Your task to perform on an android device: read, delete, or share a saved page in the chrome app Image 0: 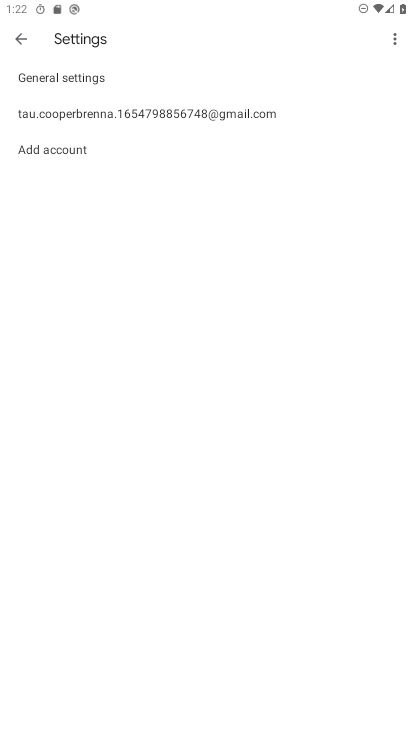
Step 0: drag from (224, 321) to (269, 74)
Your task to perform on an android device: read, delete, or share a saved page in the chrome app Image 1: 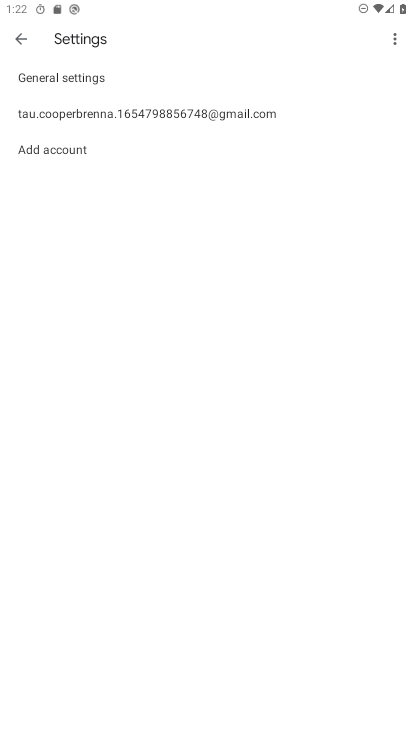
Step 1: press home button
Your task to perform on an android device: read, delete, or share a saved page in the chrome app Image 2: 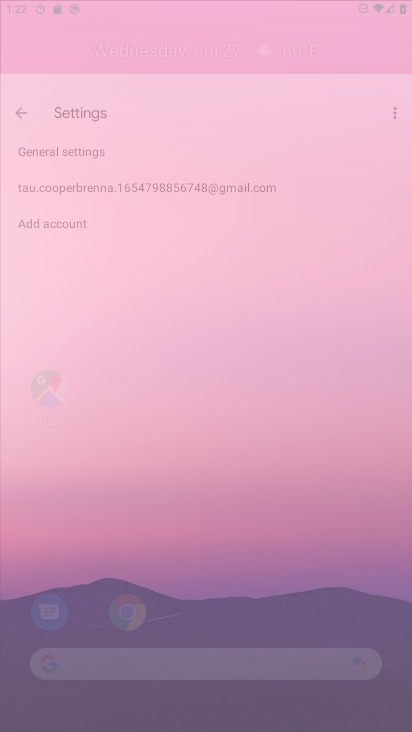
Step 2: drag from (162, 673) to (131, 5)
Your task to perform on an android device: read, delete, or share a saved page in the chrome app Image 3: 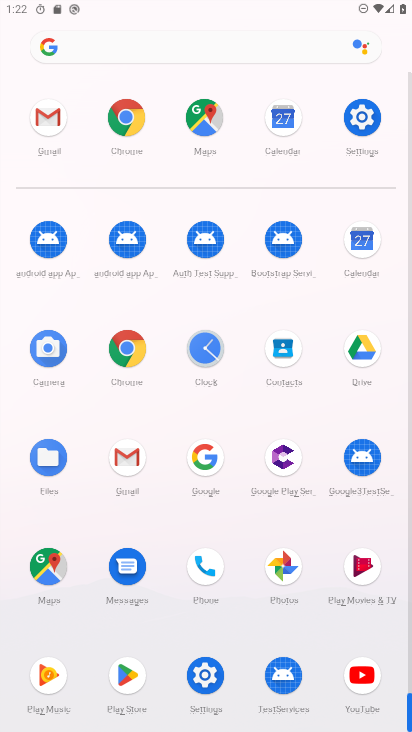
Step 3: click (118, 350)
Your task to perform on an android device: read, delete, or share a saved page in the chrome app Image 4: 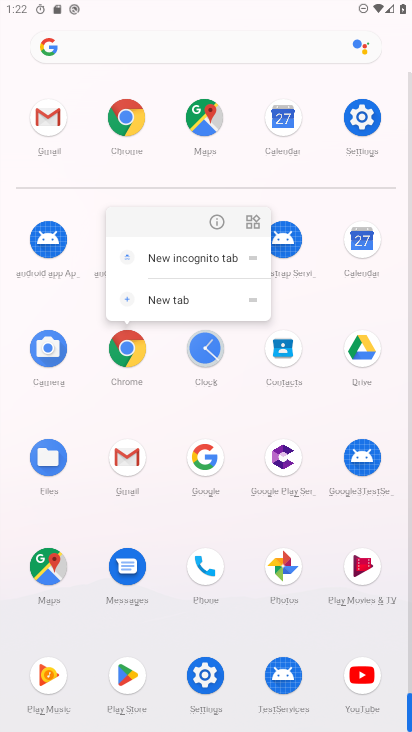
Step 4: click (214, 223)
Your task to perform on an android device: read, delete, or share a saved page in the chrome app Image 5: 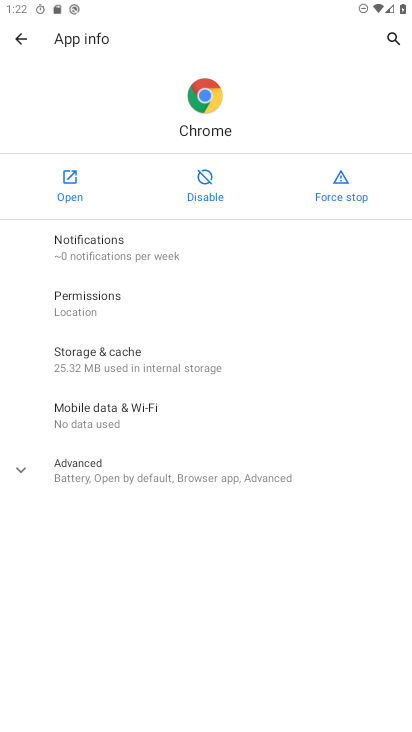
Step 5: click (88, 183)
Your task to perform on an android device: read, delete, or share a saved page in the chrome app Image 6: 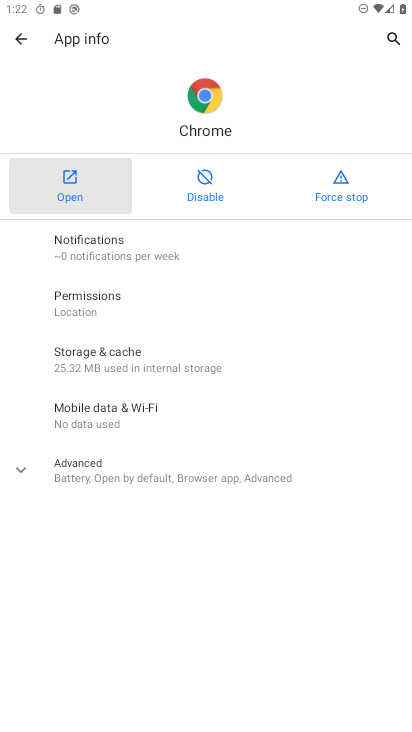
Step 6: click (86, 184)
Your task to perform on an android device: read, delete, or share a saved page in the chrome app Image 7: 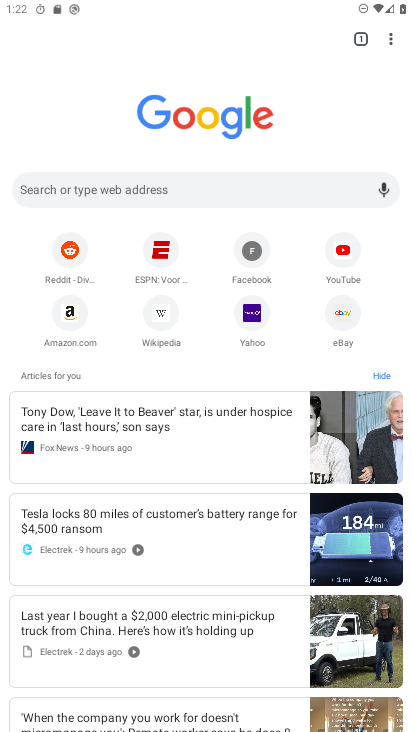
Step 7: drag from (203, 585) to (268, 330)
Your task to perform on an android device: read, delete, or share a saved page in the chrome app Image 8: 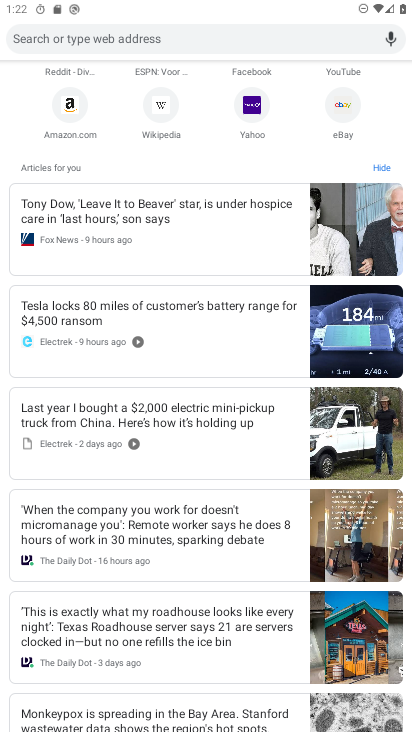
Step 8: drag from (256, 312) to (311, 731)
Your task to perform on an android device: read, delete, or share a saved page in the chrome app Image 9: 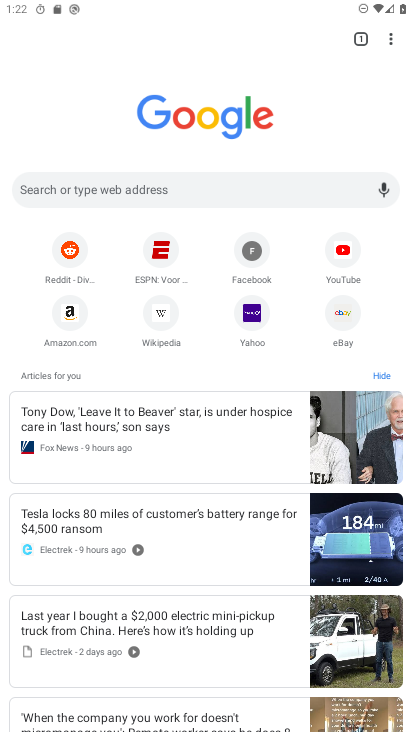
Step 9: drag from (388, 34) to (263, 189)
Your task to perform on an android device: read, delete, or share a saved page in the chrome app Image 10: 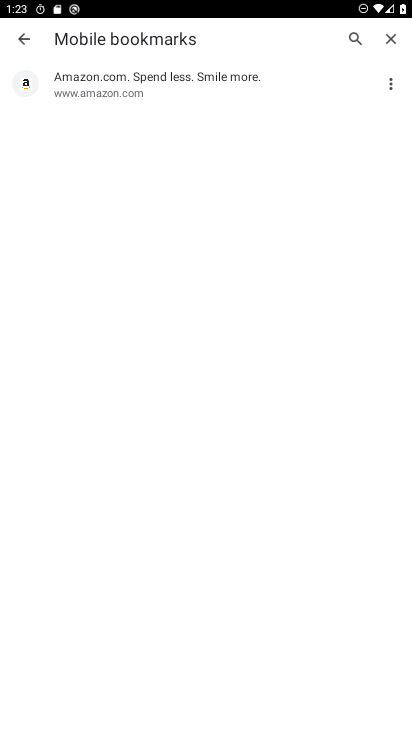
Step 10: drag from (174, 496) to (199, 363)
Your task to perform on an android device: read, delete, or share a saved page in the chrome app Image 11: 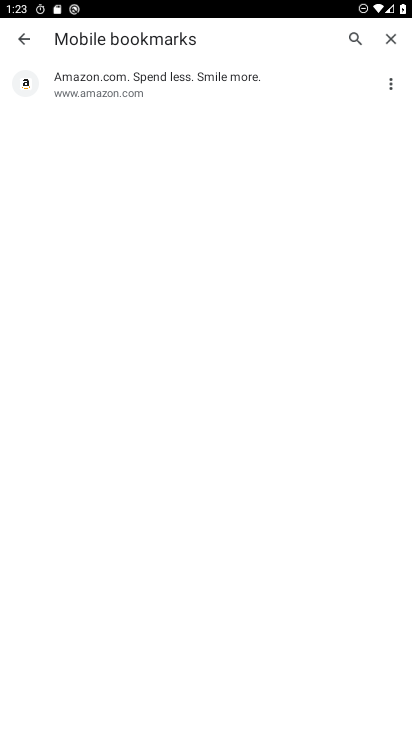
Step 11: click (131, 87)
Your task to perform on an android device: read, delete, or share a saved page in the chrome app Image 12: 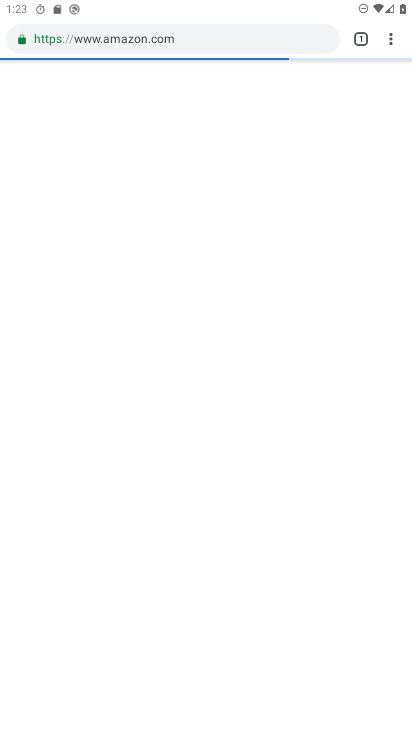
Step 12: task complete